Your task to perform on an android device: What's on my calendar today? Image 0: 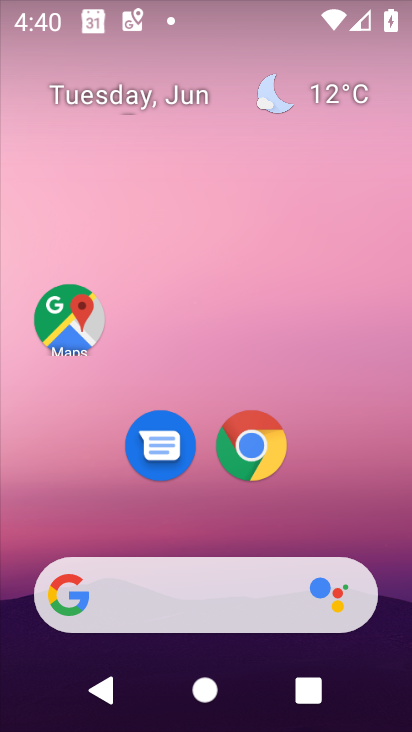
Step 0: drag from (334, 470) to (2, 482)
Your task to perform on an android device: What's on my calendar today? Image 1: 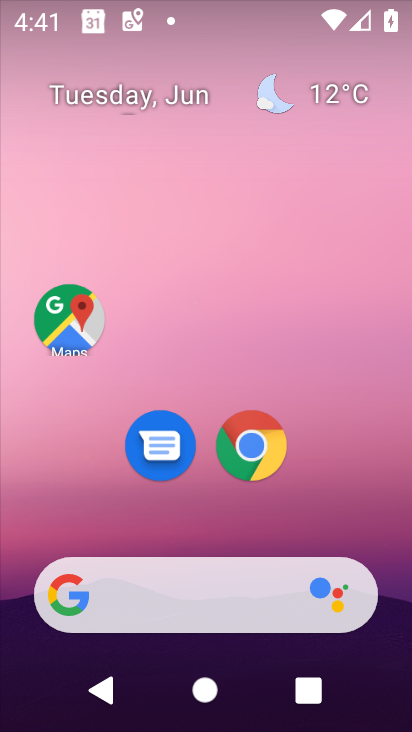
Step 1: drag from (343, 480) to (359, 64)
Your task to perform on an android device: What's on my calendar today? Image 2: 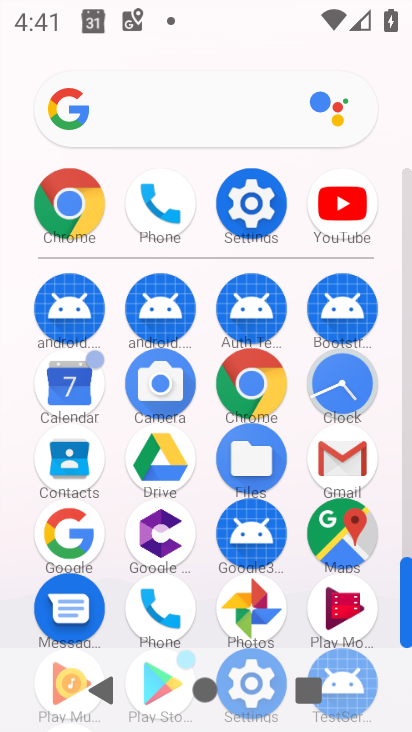
Step 2: click (78, 375)
Your task to perform on an android device: What's on my calendar today? Image 3: 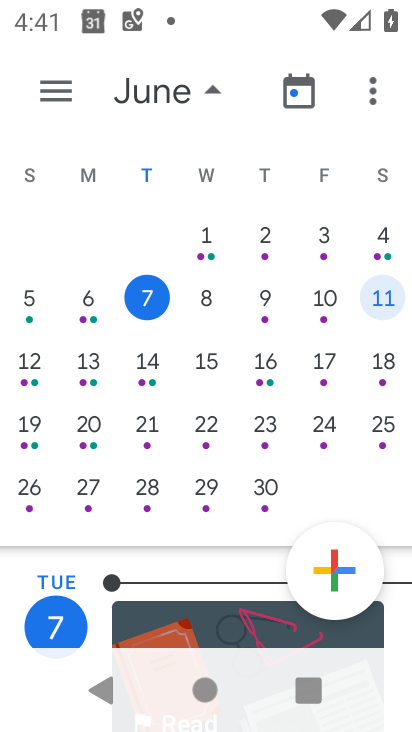
Step 3: task complete